Your task to perform on an android device: Open Wikipedia Image 0: 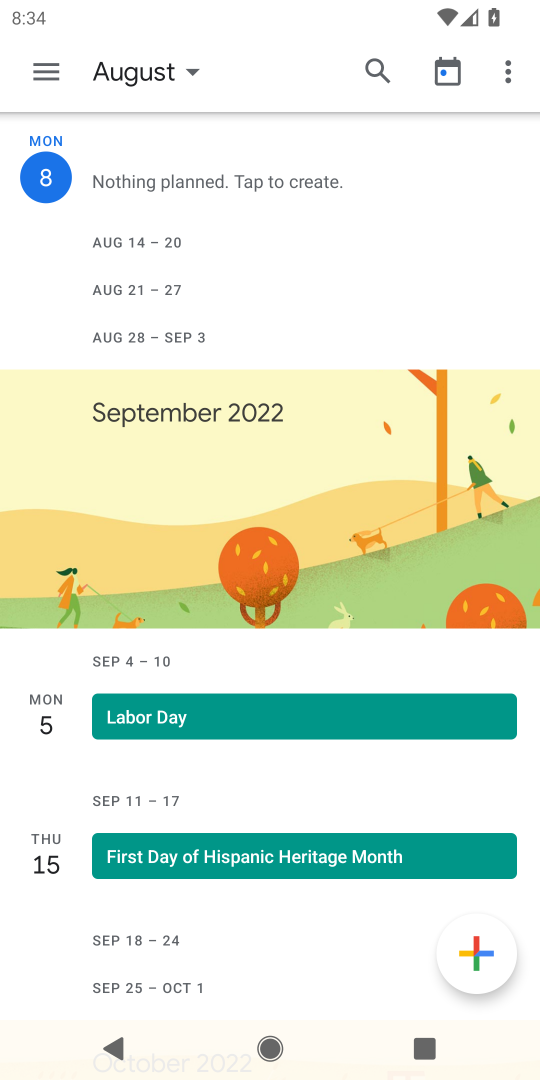
Step 0: press home button
Your task to perform on an android device: Open Wikipedia Image 1: 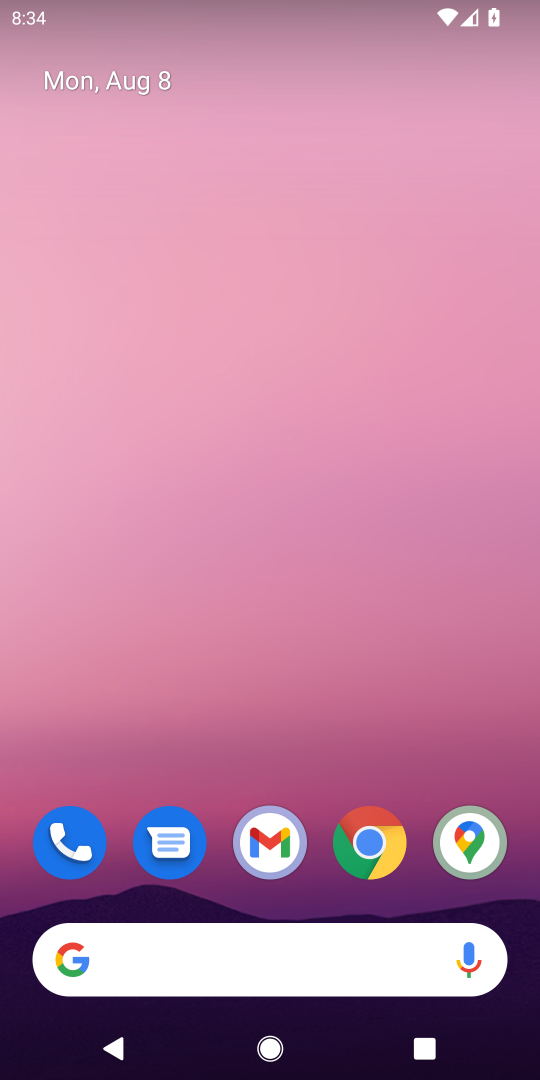
Step 1: click (363, 845)
Your task to perform on an android device: Open Wikipedia Image 2: 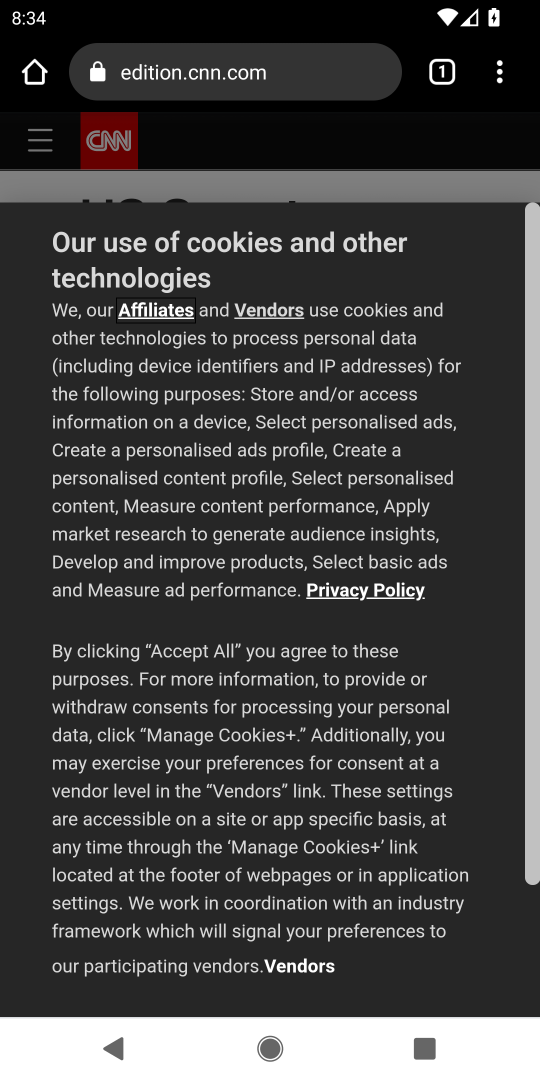
Step 2: click (255, 67)
Your task to perform on an android device: Open Wikipedia Image 3: 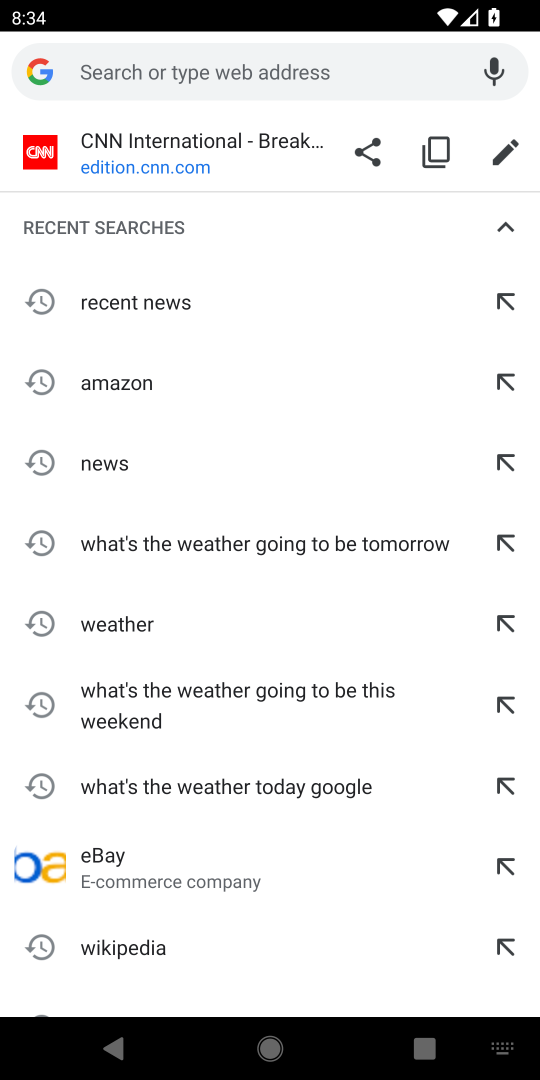
Step 3: type "wikipedia"
Your task to perform on an android device: Open Wikipedia Image 4: 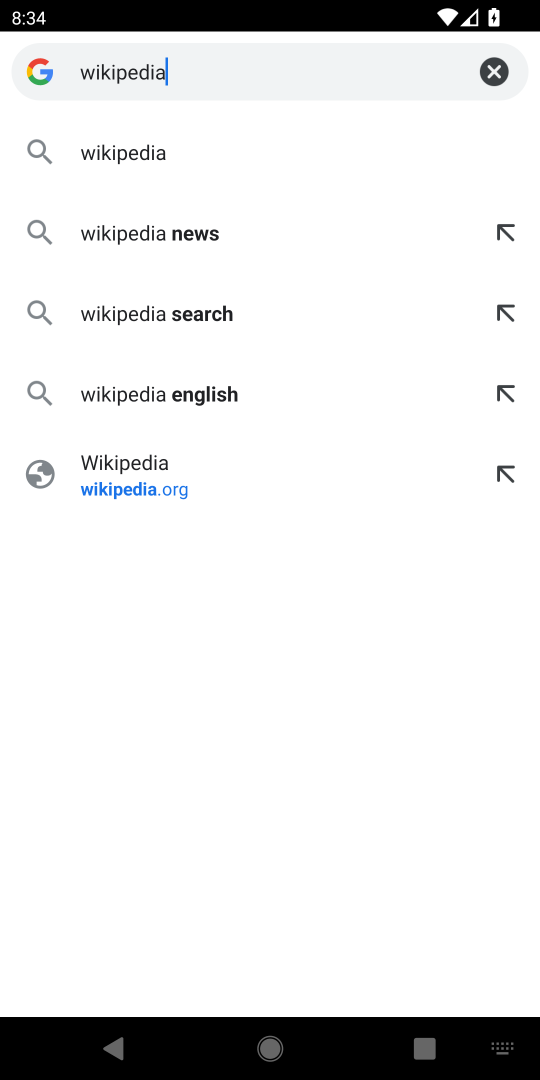
Step 4: click (341, 152)
Your task to perform on an android device: Open Wikipedia Image 5: 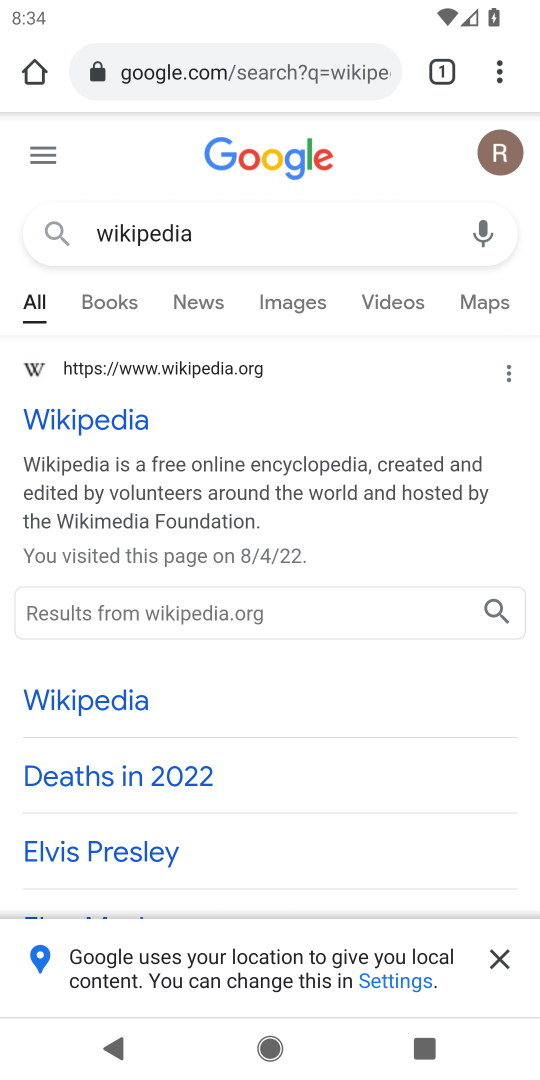
Step 5: click (118, 424)
Your task to perform on an android device: Open Wikipedia Image 6: 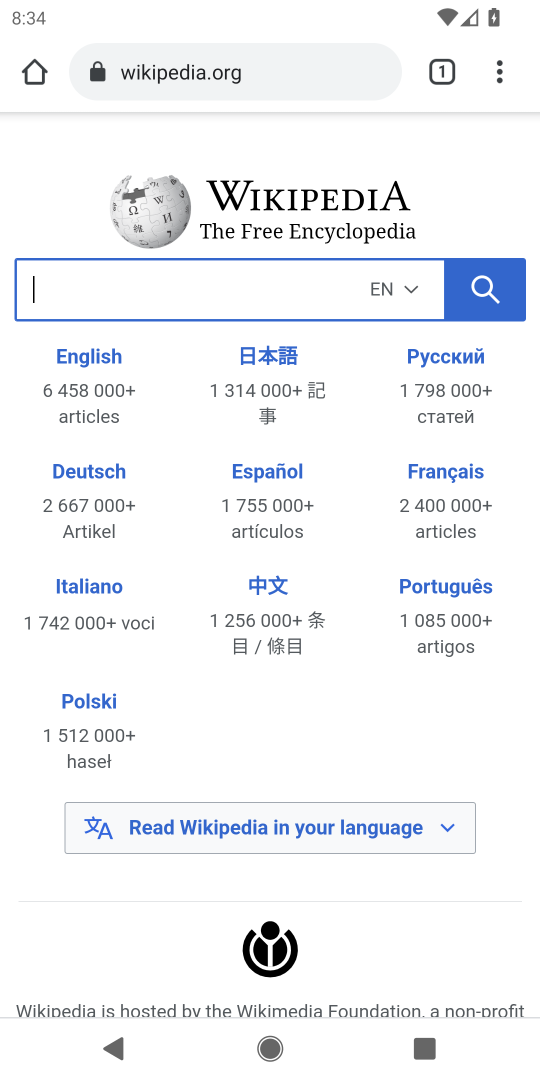
Step 6: task complete